Your task to perform on an android device: Go to internet settings Image 0: 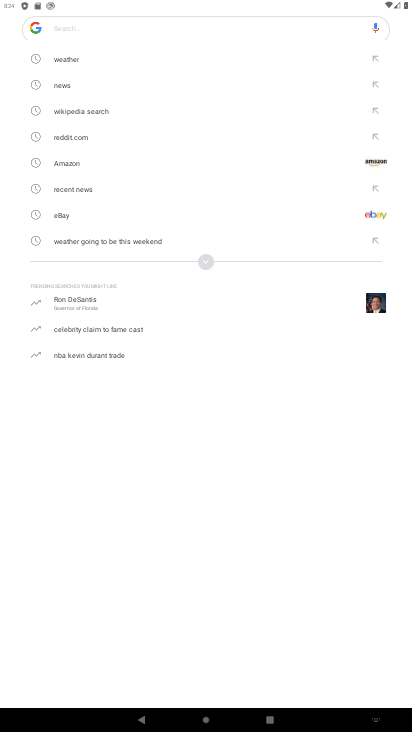
Step 0: press home button
Your task to perform on an android device: Go to internet settings Image 1: 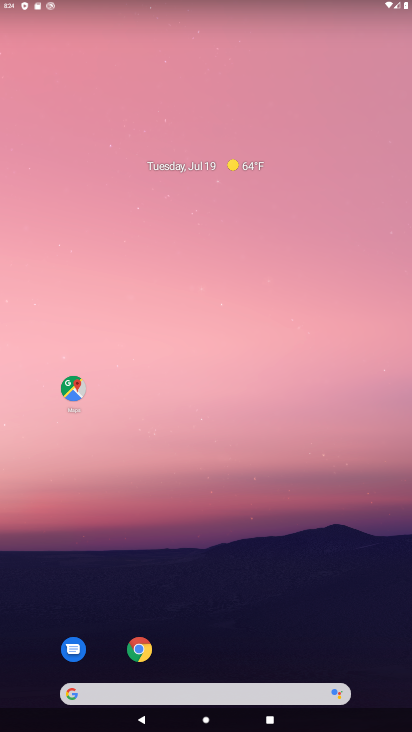
Step 1: drag from (196, 623) to (146, 106)
Your task to perform on an android device: Go to internet settings Image 2: 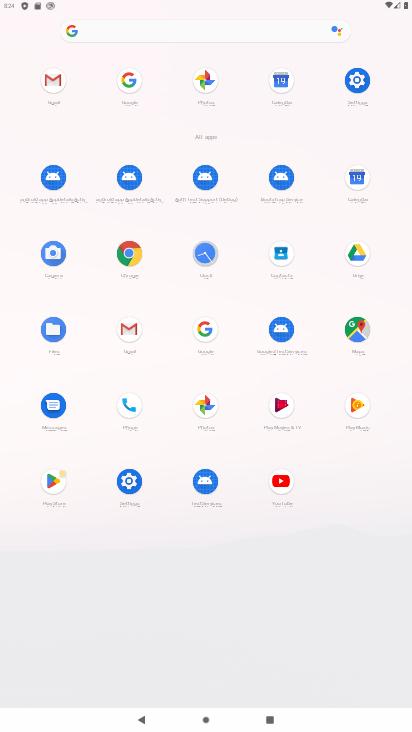
Step 2: click (362, 91)
Your task to perform on an android device: Go to internet settings Image 3: 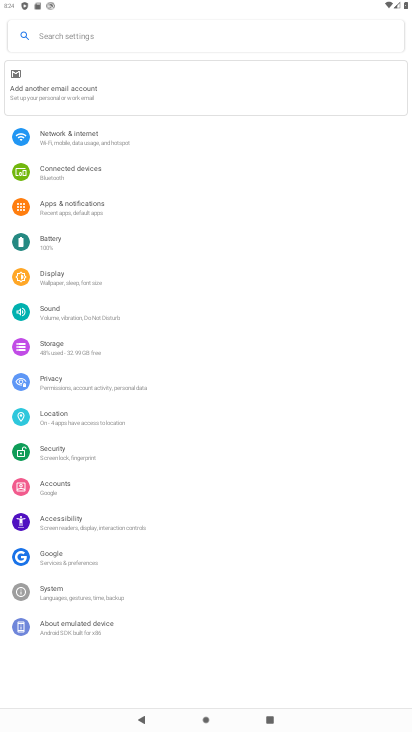
Step 3: click (103, 150)
Your task to perform on an android device: Go to internet settings Image 4: 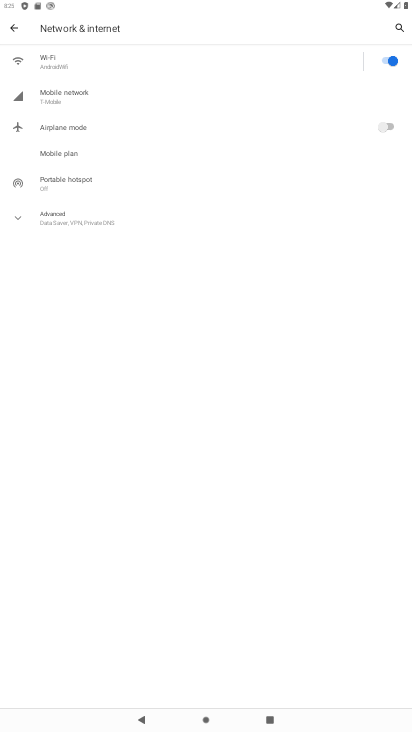
Step 4: task complete